Your task to perform on an android device: set the timer Image 0: 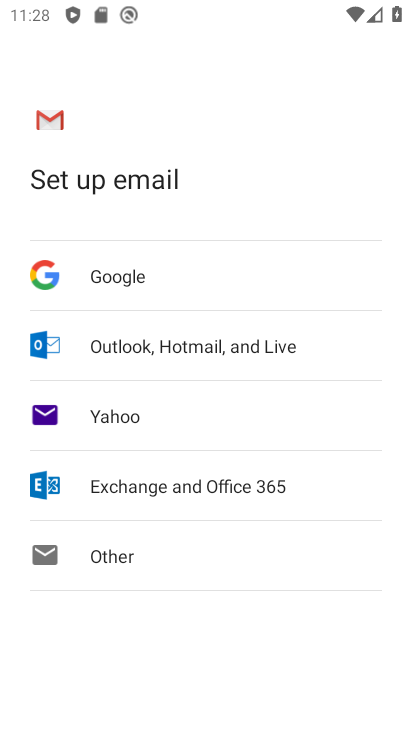
Step 0: press home button
Your task to perform on an android device: set the timer Image 1: 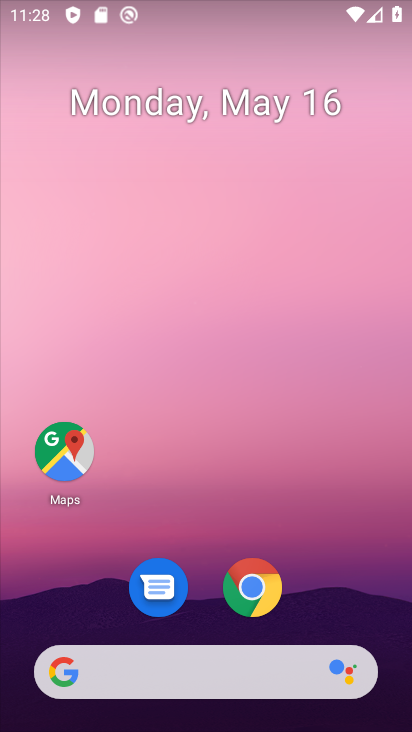
Step 1: drag from (325, 596) to (275, 171)
Your task to perform on an android device: set the timer Image 2: 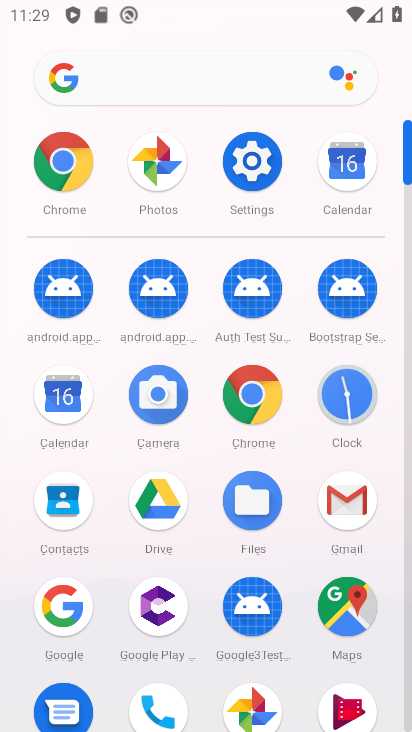
Step 2: click (358, 385)
Your task to perform on an android device: set the timer Image 3: 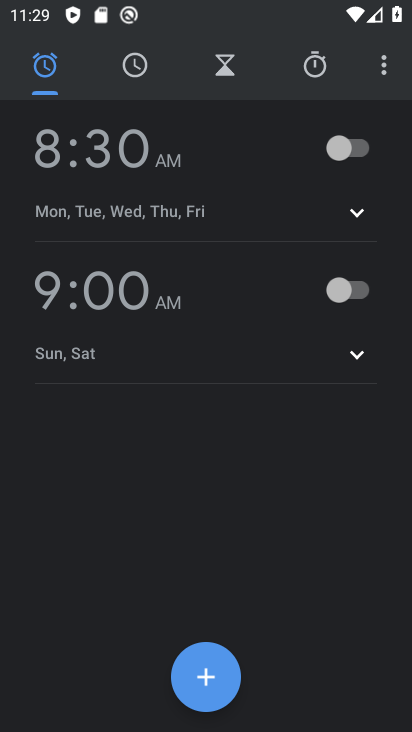
Step 3: click (380, 59)
Your task to perform on an android device: set the timer Image 4: 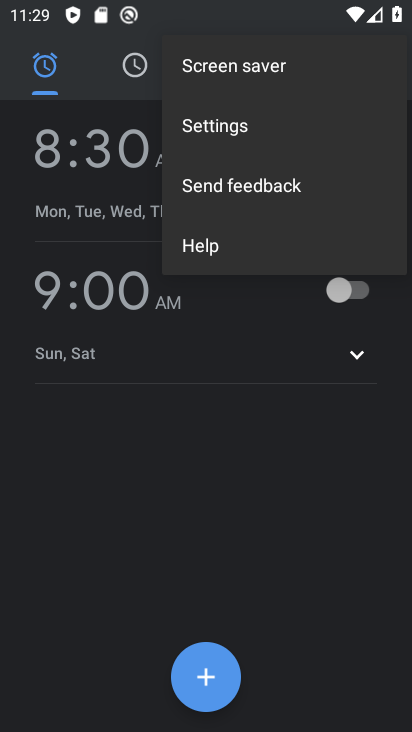
Step 4: click (321, 120)
Your task to perform on an android device: set the timer Image 5: 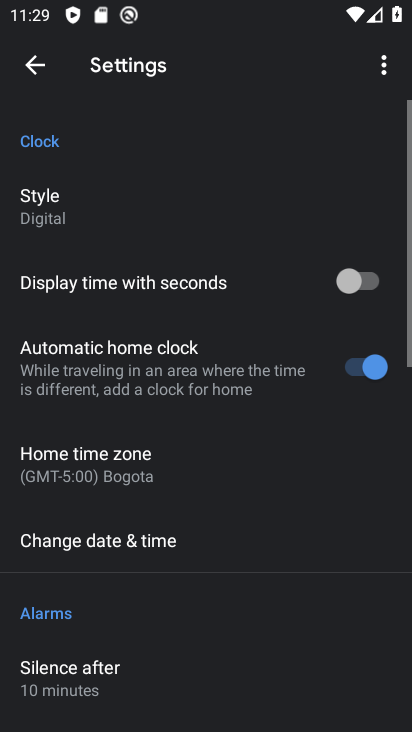
Step 5: click (127, 479)
Your task to perform on an android device: set the timer Image 6: 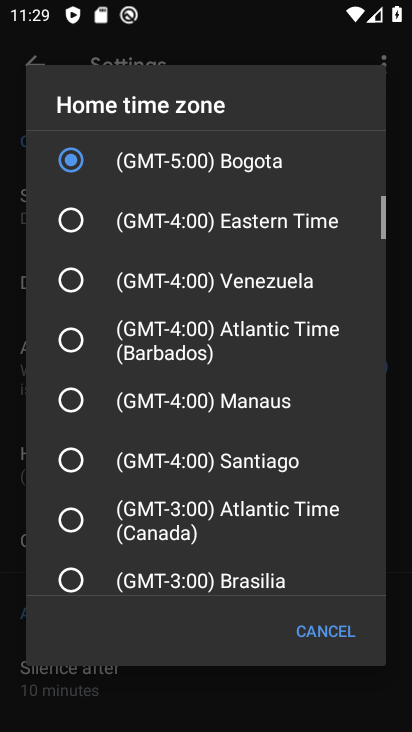
Step 6: click (138, 414)
Your task to perform on an android device: set the timer Image 7: 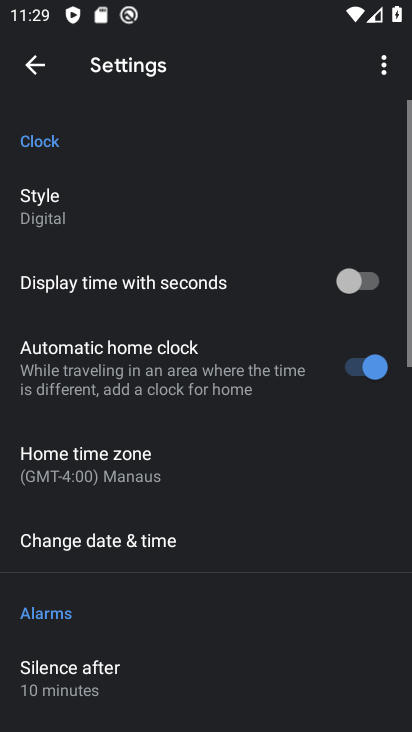
Step 7: task complete